Your task to perform on an android device: change the clock style Image 0: 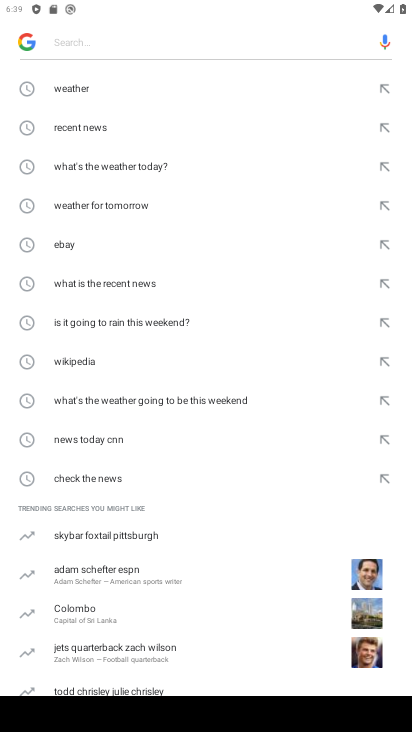
Step 0: press home button
Your task to perform on an android device: change the clock style Image 1: 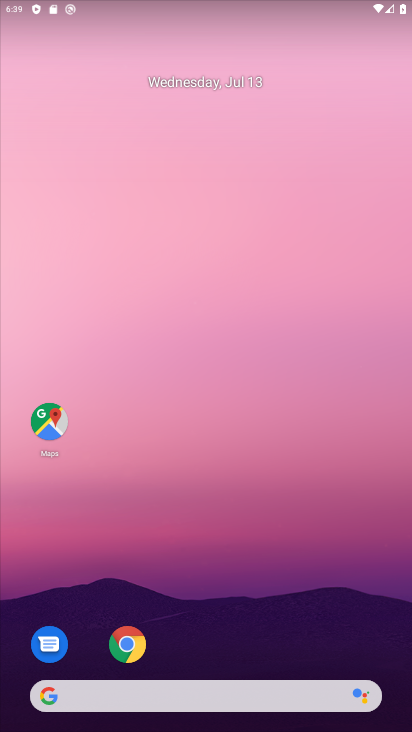
Step 1: drag from (250, 571) to (210, 20)
Your task to perform on an android device: change the clock style Image 2: 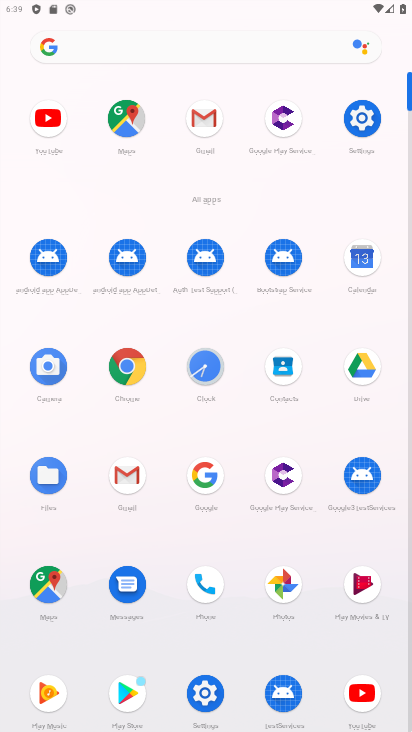
Step 2: click (207, 362)
Your task to perform on an android device: change the clock style Image 3: 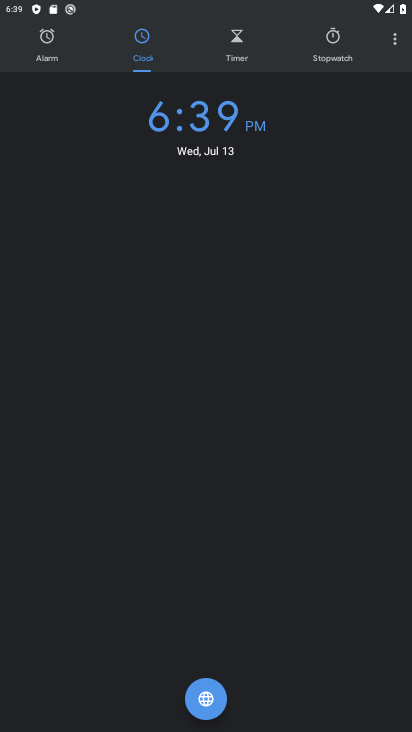
Step 3: click (393, 41)
Your task to perform on an android device: change the clock style Image 4: 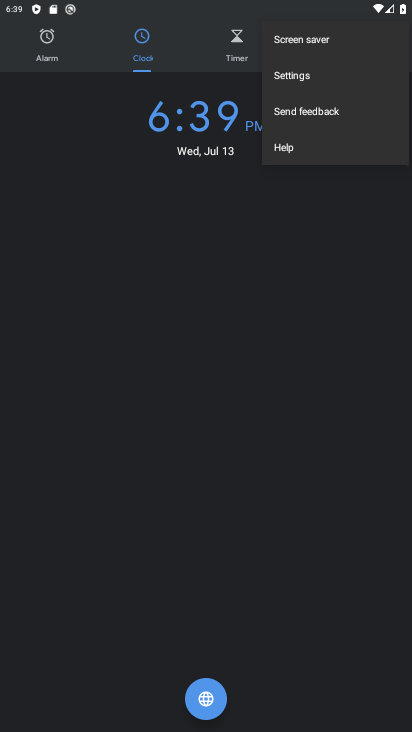
Step 4: click (305, 70)
Your task to perform on an android device: change the clock style Image 5: 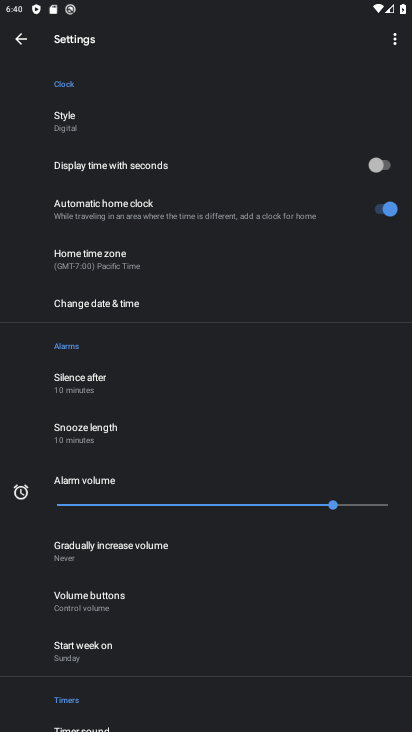
Step 5: click (71, 115)
Your task to perform on an android device: change the clock style Image 6: 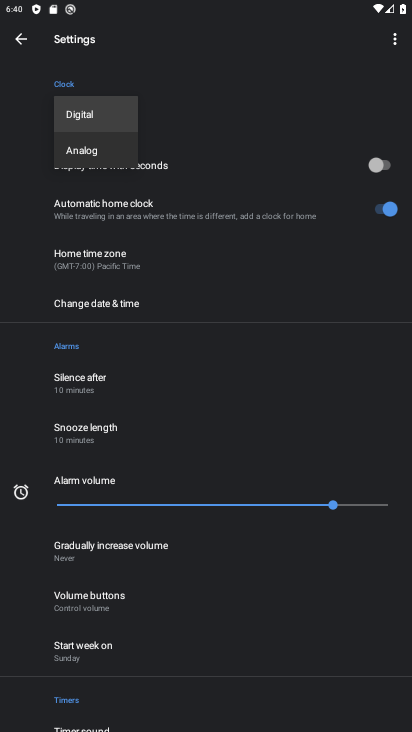
Step 6: click (87, 151)
Your task to perform on an android device: change the clock style Image 7: 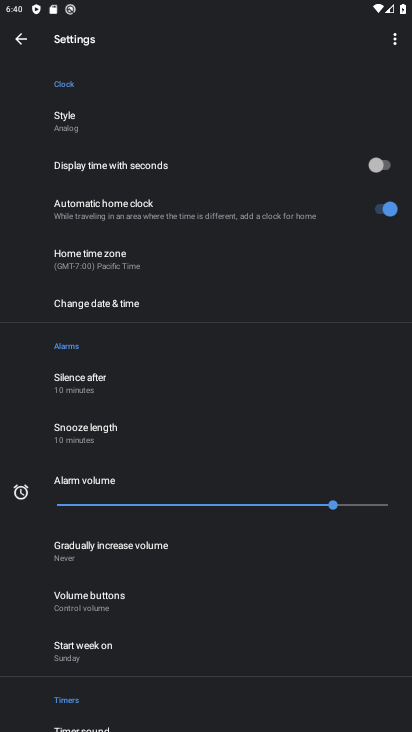
Step 7: task complete